Your task to perform on an android device: Search for pizza restaurants on Maps Image 0: 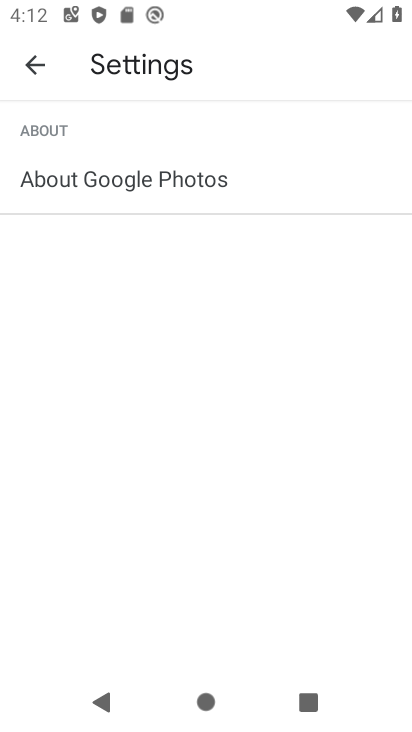
Step 0: press home button
Your task to perform on an android device: Search for pizza restaurants on Maps Image 1: 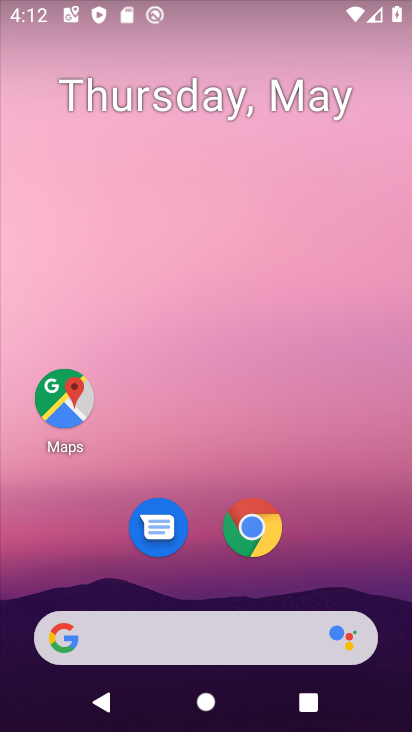
Step 1: drag from (352, 535) to (322, 24)
Your task to perform on an android device: Search for pizza restaurants on Maps Image 2: 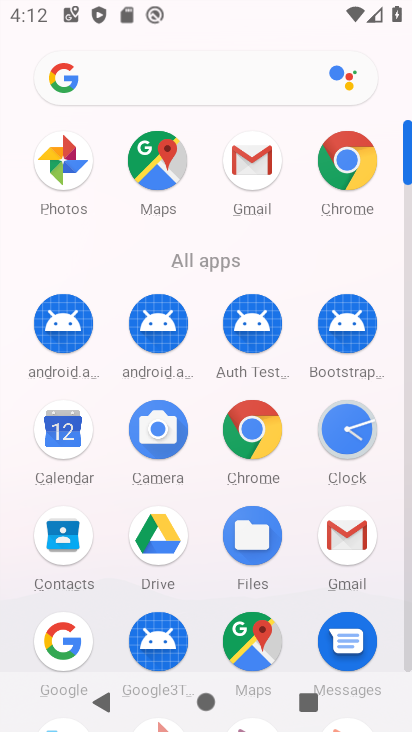
Step 2: click (159, 167)
Your task to perform on an android device: Search for pizza restaurants on Maps Image 3: 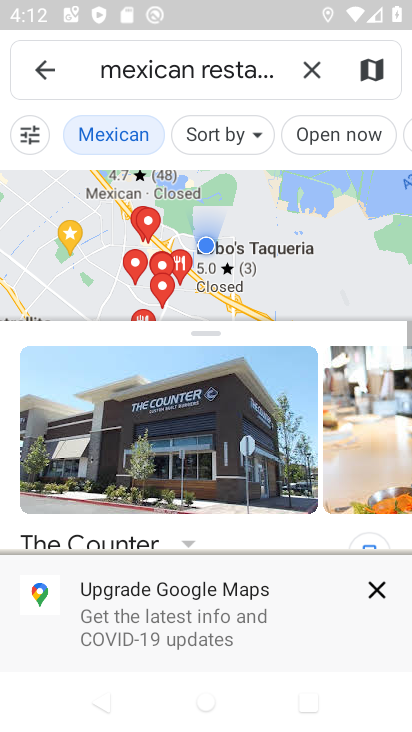
Step 3: click (302, 71)
Your task to perform on an android device: Search for pizza restaurants on Maps Image 4: 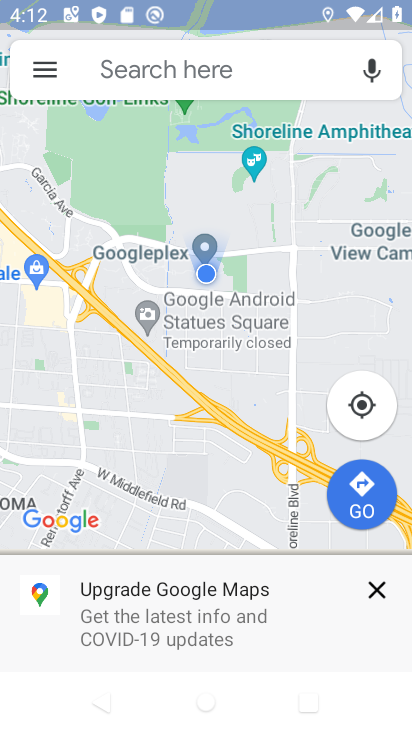
Step 4: click (204, 98)
Your task to perform on an android device: Search for pizza restaurants on Maps Image 5: 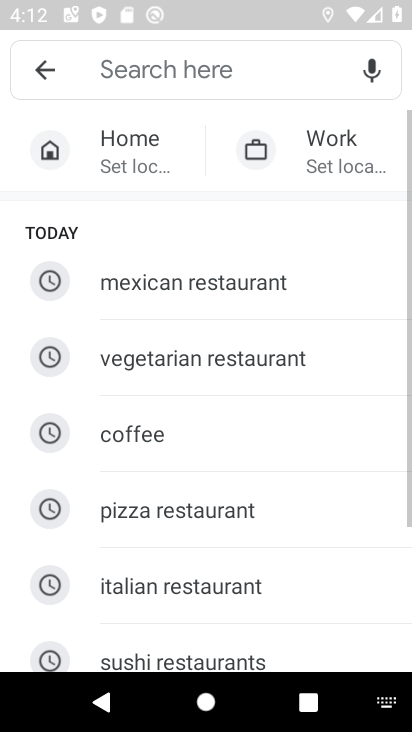
Step 5: click (197, 515)
Your task to perform on an android device: Search for pizza restaurants on Maps Image 6: 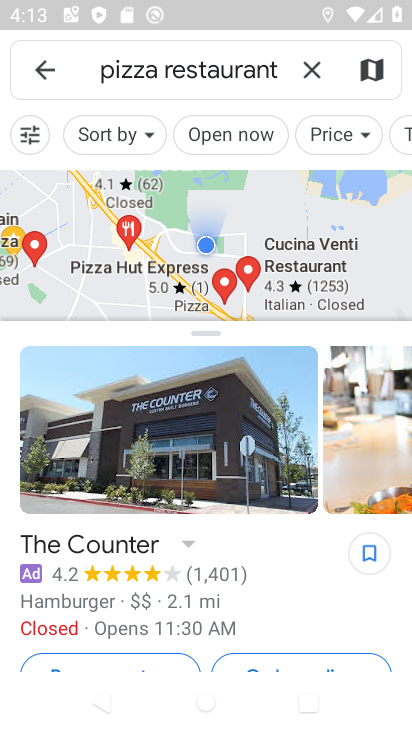
Step 6: task complete